Your task to perform on an android device: Open calendar and show me the first week of next month Image 0: 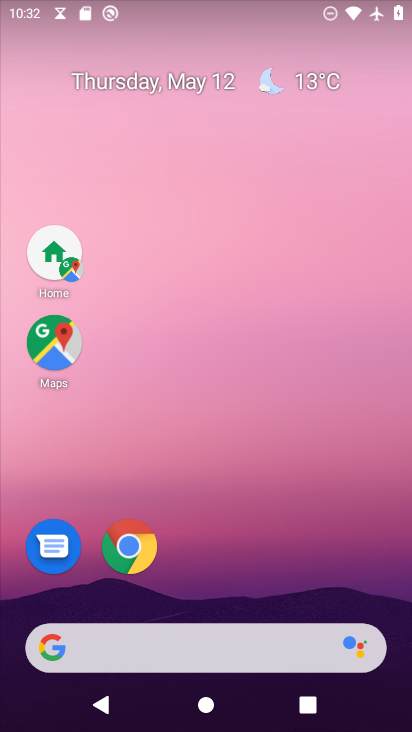
Step 0: press home button
Your task to perform on an android device: Open calendar and show me the first week of next month Image 1: 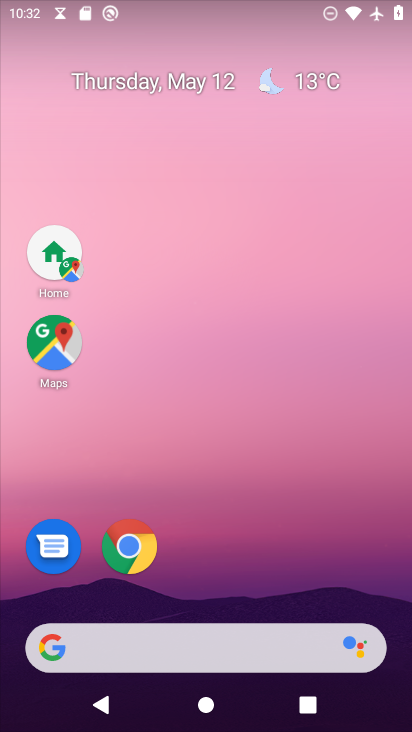
Step 1: drag from (137, 647) to (274, 202)
Your task to perform on an android device: Open calendar and show me the first week of next month Image 2: 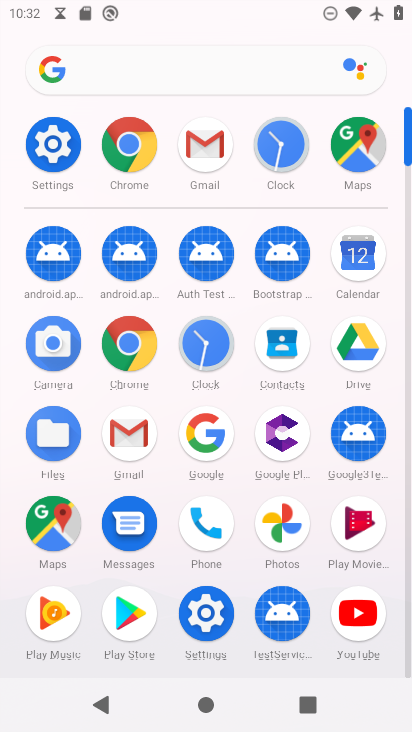
Step 2: click (363, 263)
Your task to perform on an android device: Open calendar and show me the first week of next month Image 3: 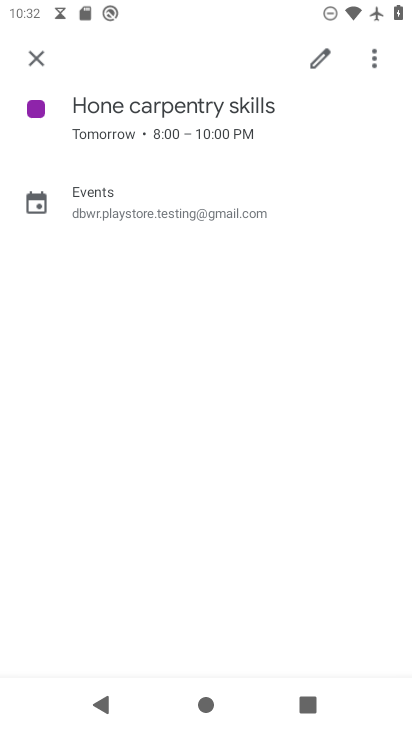
Step 3: click (33, 58)
Your task to perform on an android device: Open calendar and show me the first week of next month Image 4: 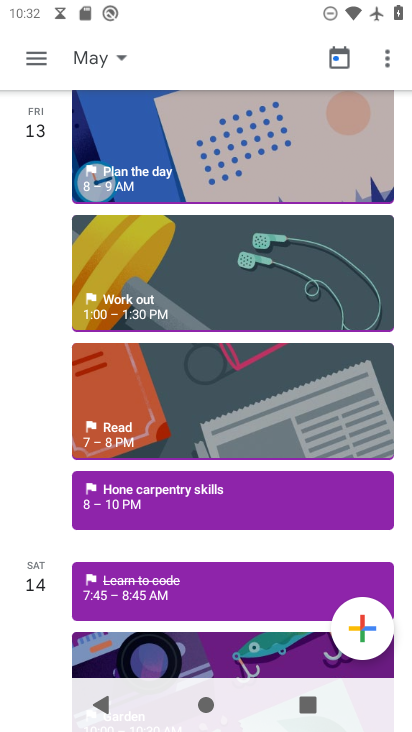
Step 4: click (92, 56)
Your task to perform on an android device: Open calendar and show me the first week of next month Image 5: 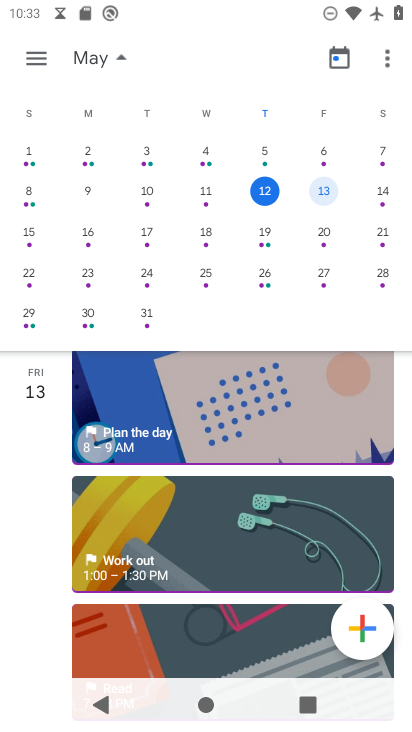
Step 5: drag from (363, 247) to (43, 227)
Your task to perform on an android device: Open calendar and show me the first week of next month Image 6: 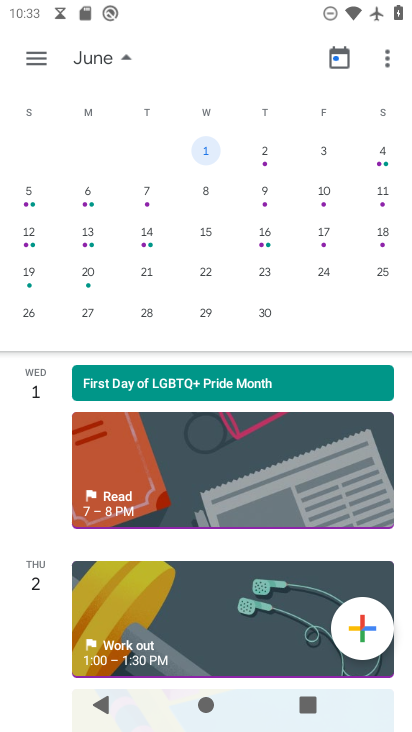
Step 6: click (199, 150)
Your task to perform on an android device: Open calendar and show me the first week of next month Image 7: 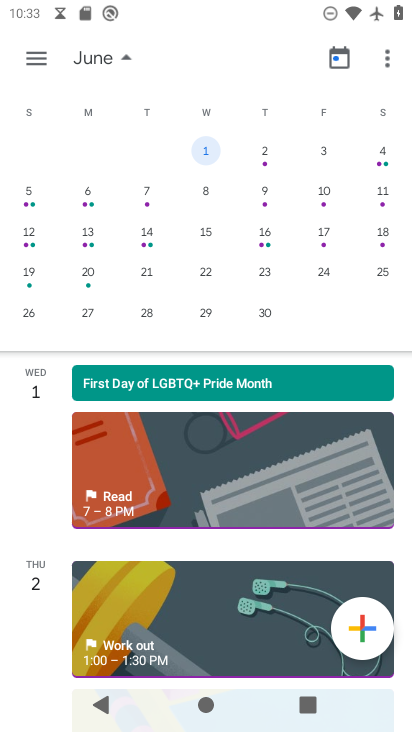
Step 7: click (40, 60)
Your task to perform on an android device: Open calendar and show me the first week of next month Image 8: 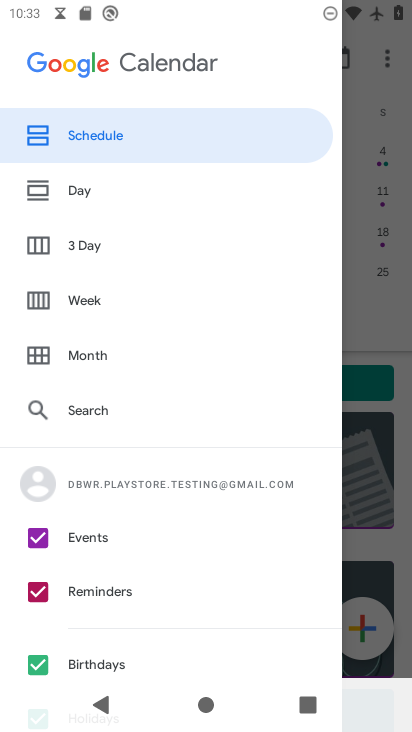
Step 8: click (89, 302)
Your task to perform on an android device: Open calendar and show me the first week of next month Image 9: 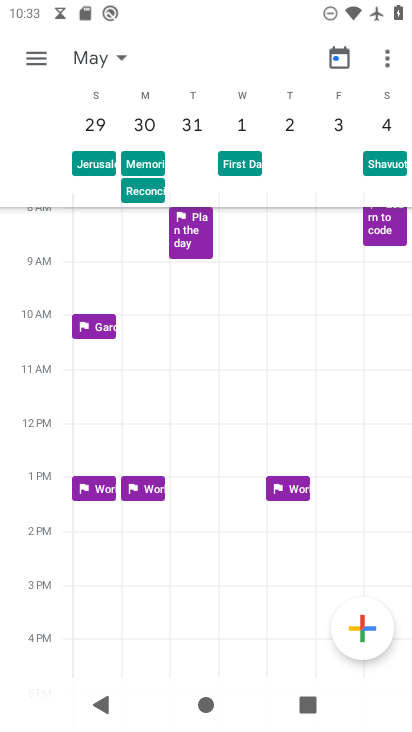
Step 9: task complete